Your task to perform on an android device: turn off translation in the chrome app Image 0: 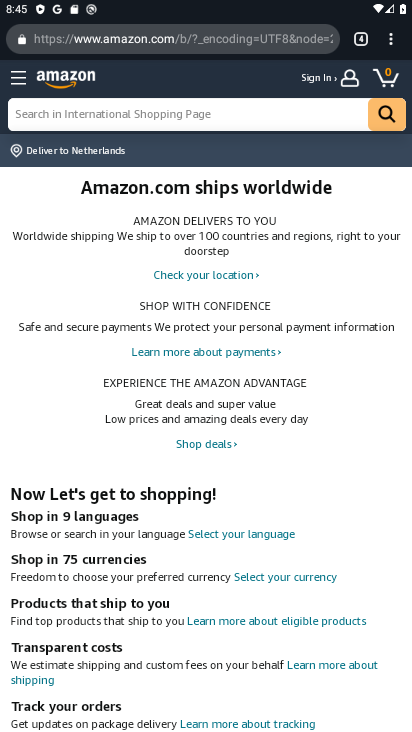
Step 0: click (396, 45)
Your task to perform on an android device: turn off translation in the chrome app Image 1: 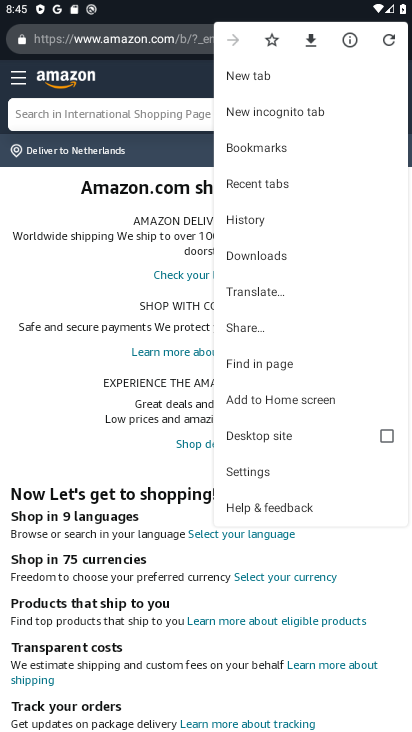
Step 1: click (288, 477)
Your task to perform on an android device: turn off translation in the chrome app Image 2: 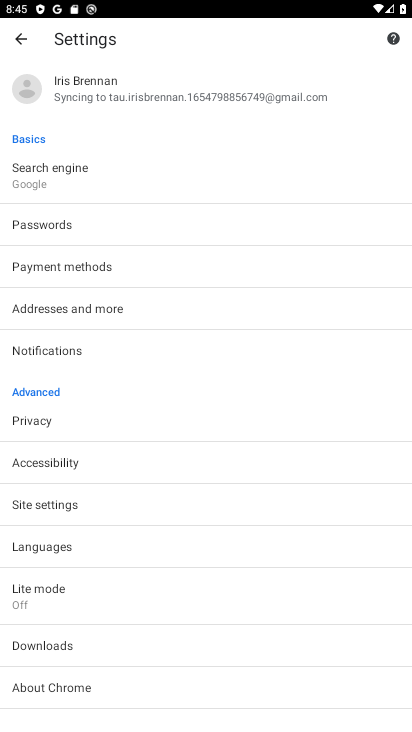
Step 2: click (103, 538)
Your task to perform on an android device: turn off translation in the chrome app Image 3: 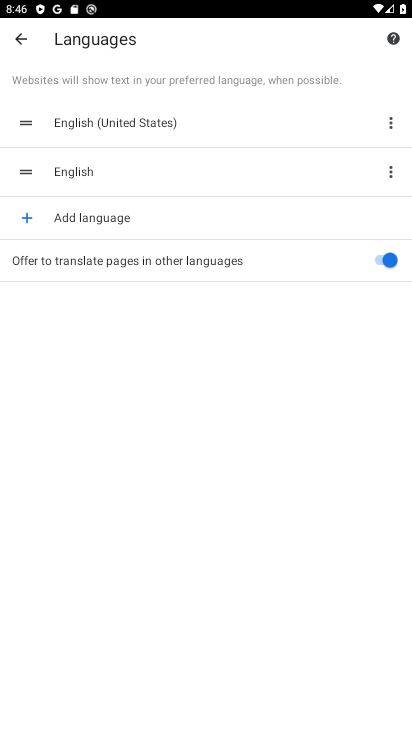
Step 3: click (379, 261)
Your task to perform on an android device: turn off translation in the chrome app Image 4: 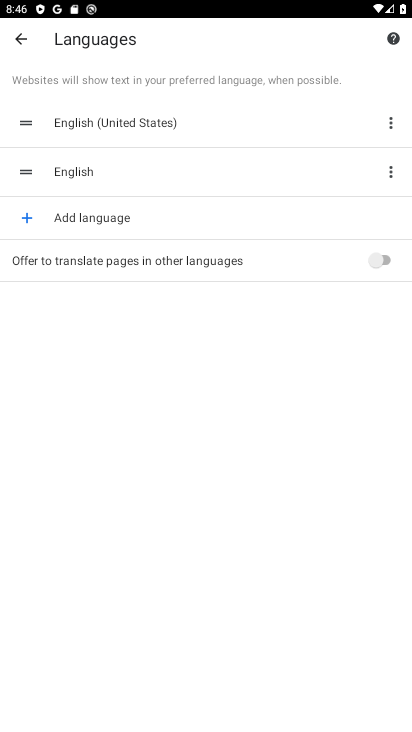
Step 4: task complete